Your task to perform on an android device: Open privacy settings Image 0: 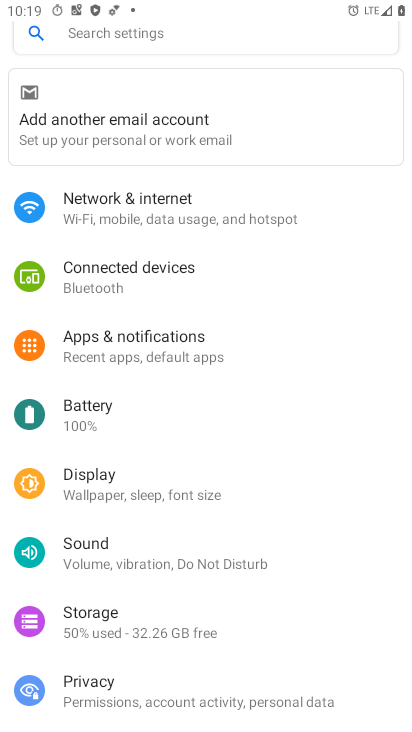
Step 0: press home button
Your task to perform on an android device: Open privacy settings Image 1: 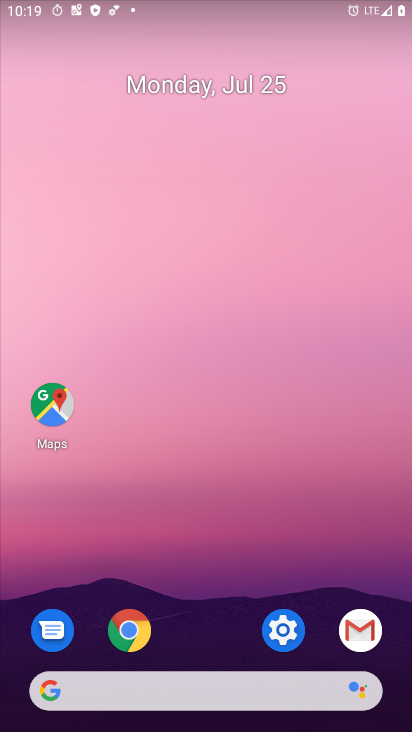
Step 1: click (279, 627)
Your task to perform on an android device: Open privacy settings Image 2: 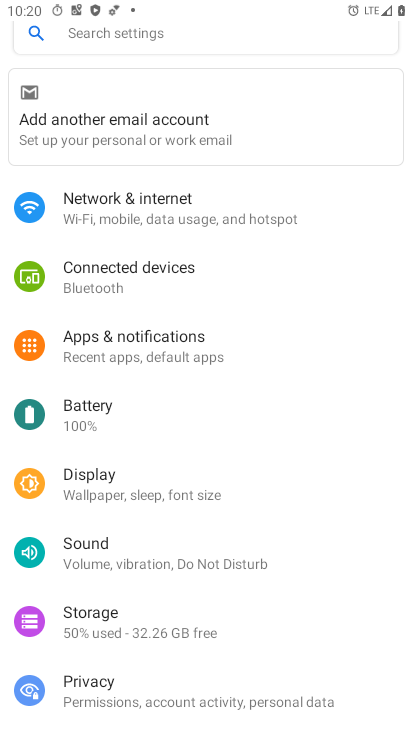
Step 2: click (84, 674)
Your task to perform on an android device: Open privacy settings Image 3: 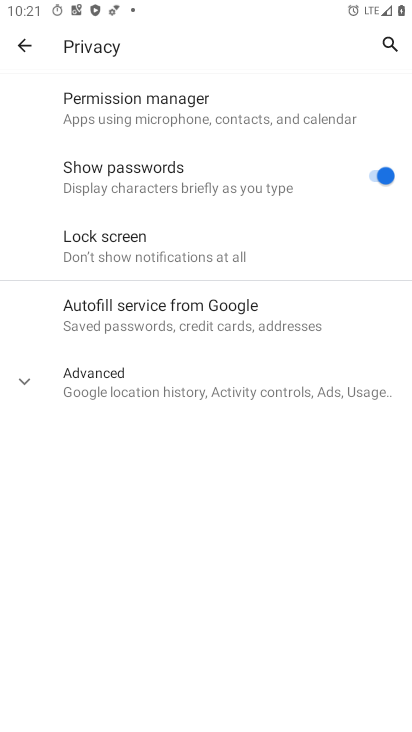
Step 3: task complete